Your task to perform on an android device: Search for Mexican restaurants on Maps Image 0: 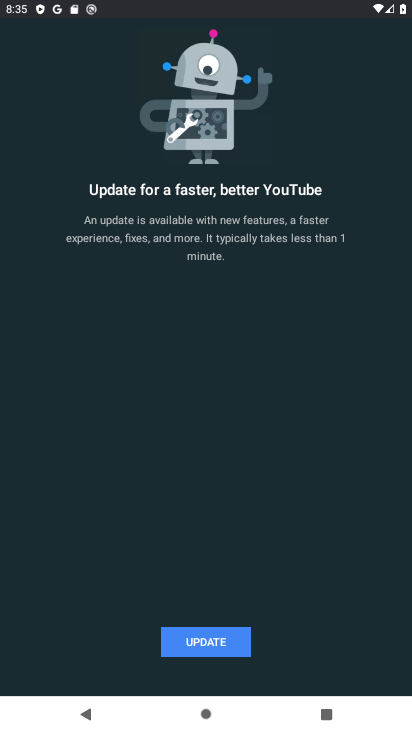
Step 0: press home button
Your task to perform on an android device: Search for Mexican restaurants on Maps Image 1: 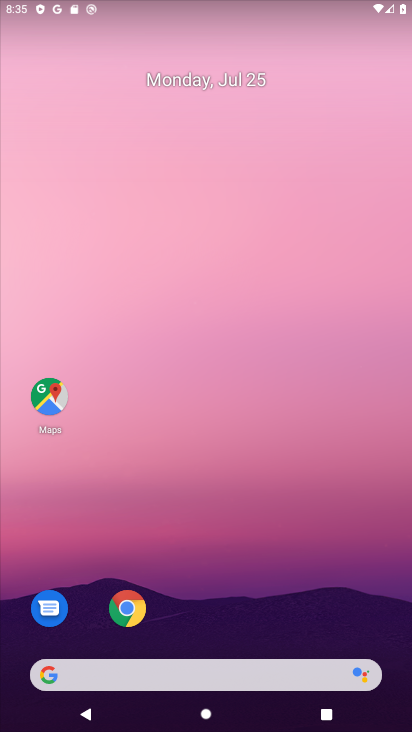
Step 1: click (51, 401)
Your task to perform on an android device: Search for Mexican restaurants on Maps Image 2: 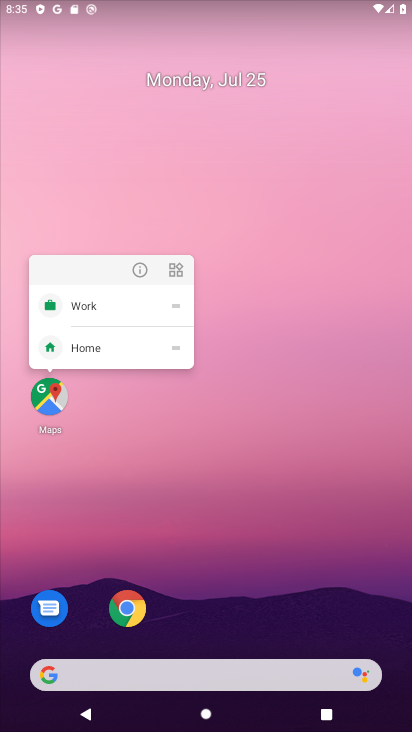
Step 2: click (44, 383)
Your task to perform on an android device: Search for Mexican restaurants on Maps Image 3: 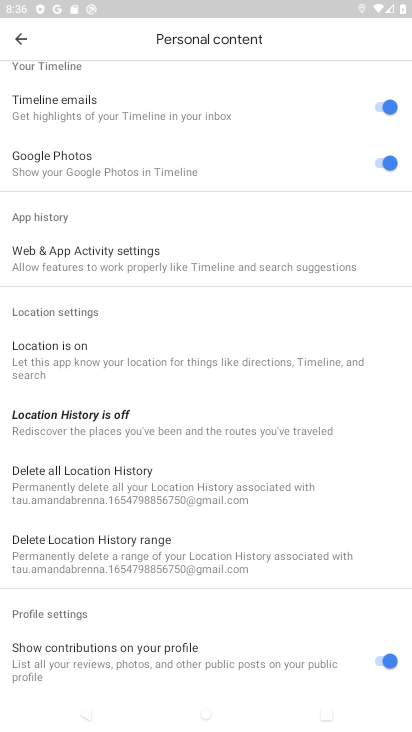
Step 3: click (16, 30)
Your task to perform on an android device: Search for Mexican restaurants on Maps Image 4: 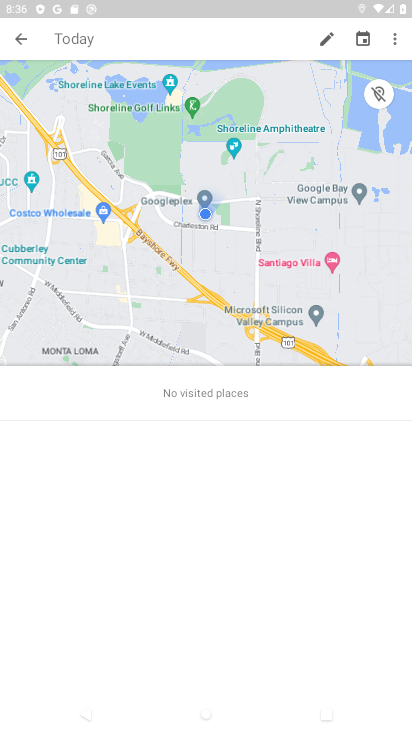
Step 4: click (26, 40)
Your task to perform on an android device: Search for Mexican restaurants on Maps Image 5: 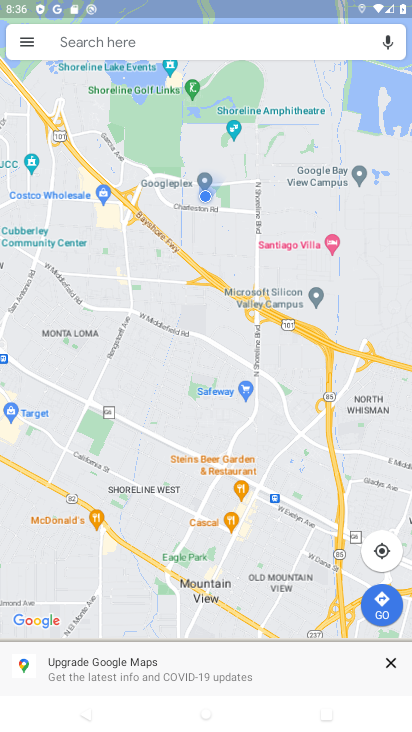
Step 5: click (138, 30)
Your task to perform on an android device: Search for Mexican restaurants on Maps Image 6: 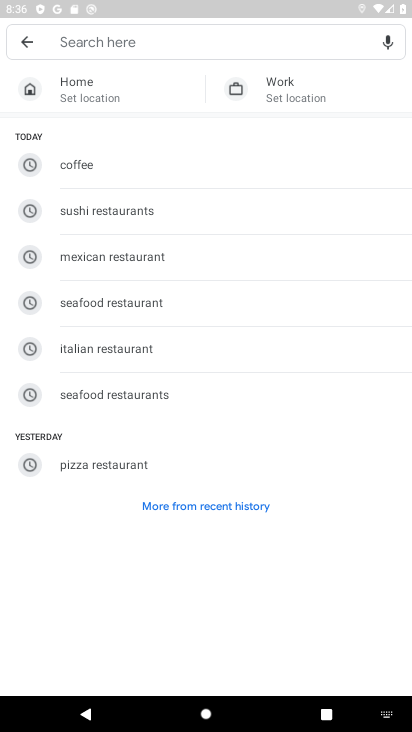
Step 6: click (132, 245)
Your task to perform on an android device: Search for Mexican restaurants on Maps Image 7: 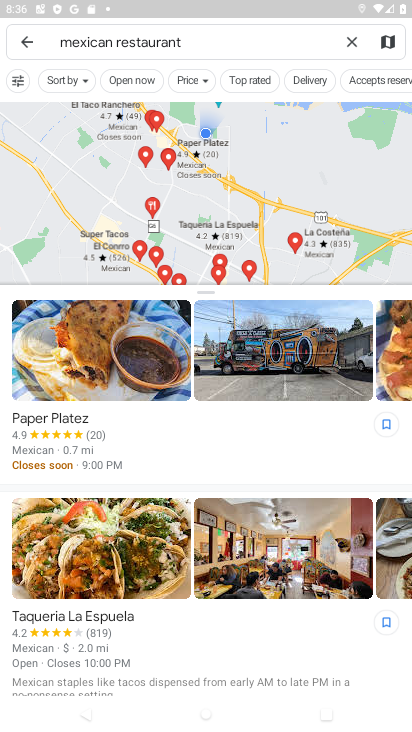
Step 7: task complete